Your task to perform on an android device: delete a single message in the gmail app Image 0: 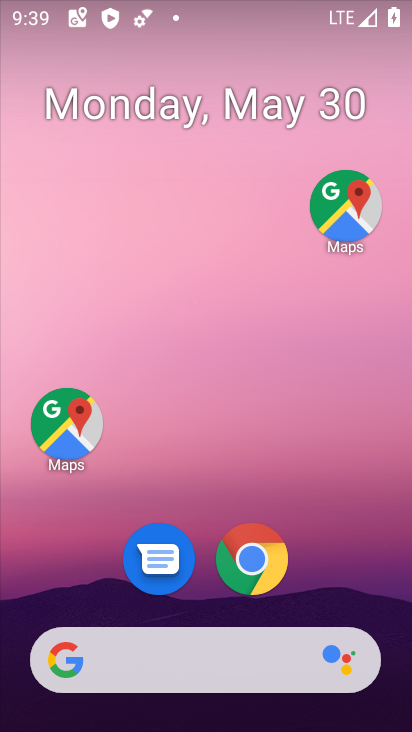
Step 0: drag from (352, 561) to (303, 79)
Your task to perform on an android device: delete a single message in the gmail app Image 1: 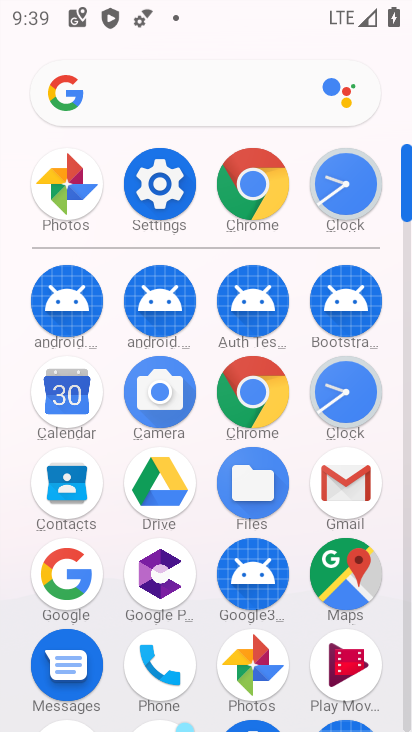
Step 1: click (342, 498)
Your task to perform on an android device: delete a single message in the gmail app Image 2: 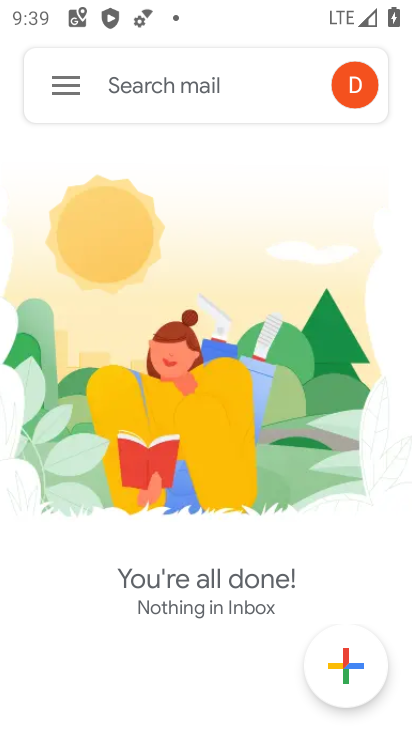
Step 2: click (63, 89)
Your task to perform on an android device: delete a single message in the gmail app Image 3: 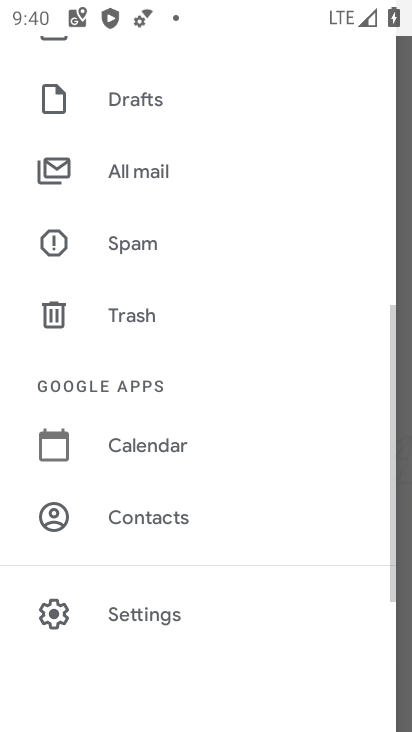
Step 3: click (143, 167)
Your task to perform on an android device: delete a single message in the gmail app Image 4: 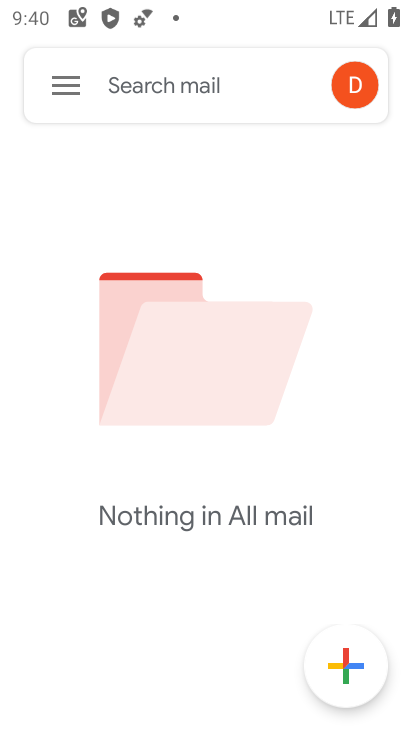
Step 4: task complete